Your task to perform on an android device: turn on data saver in the chrome app Image 0: 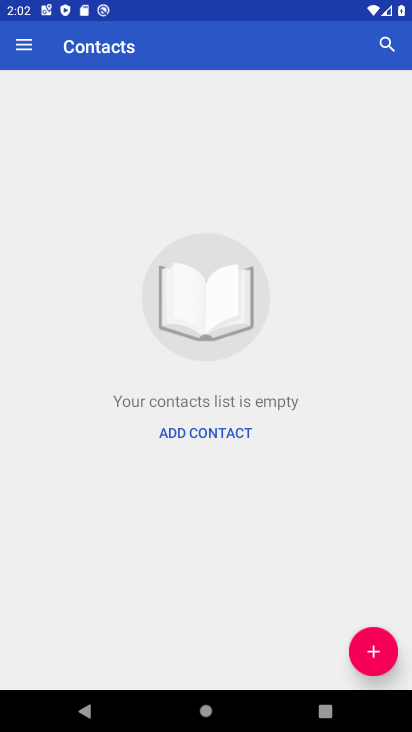
Step 0: press home button
Your task to perform on an android device: turn on data saver in the chrome app Image 1: 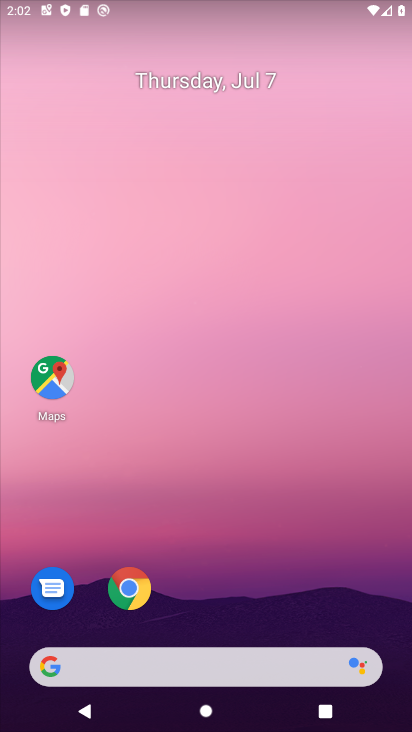
Step 1: click (121, 591)
Your task to perform on an android device: turn on data saver in the chrome app Image 2: 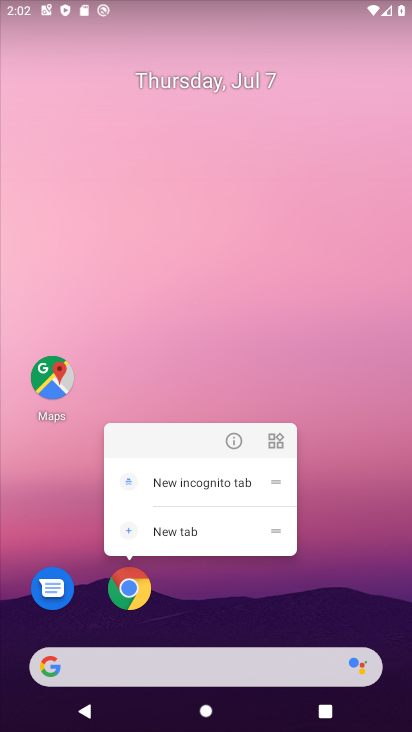
Step 2: click (129, 588)
Your task to perform on an android device: turn on data saver in the chrome app Image 3: 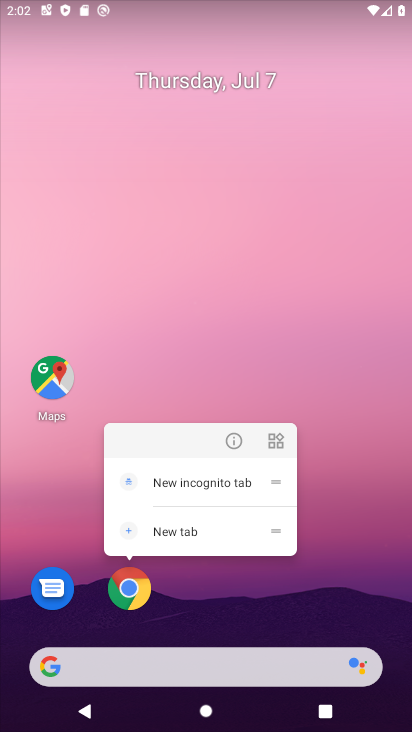
Step 3: click (131, 588)
Your task to perform on an android device: turn on data saver in the chrome app Image 4: 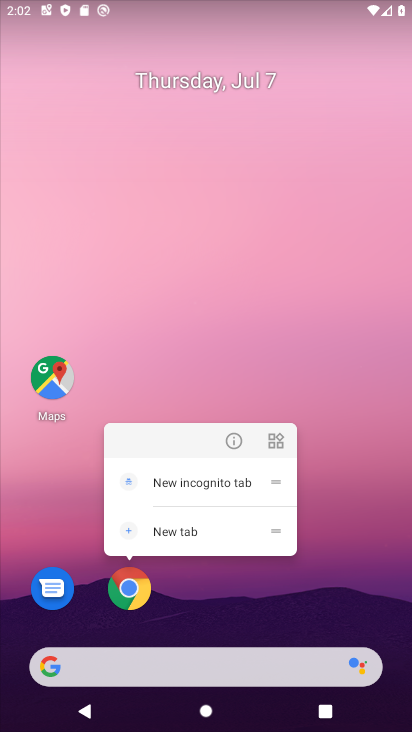
Step 4: click (122, 610)
Your task to perform on an android device: turn on data saver in the chrome app Image 5: 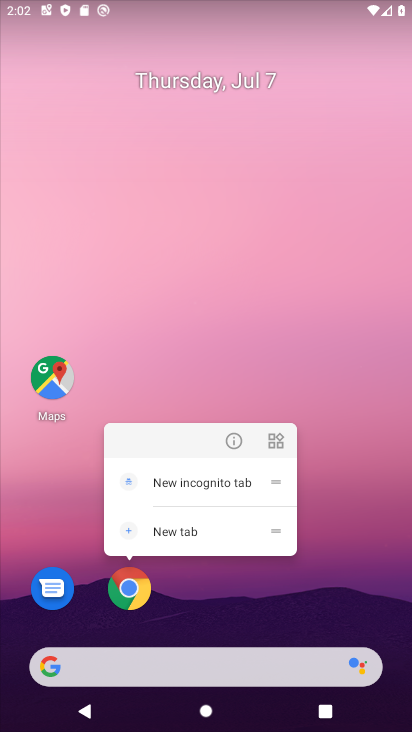
Step 5: click (127, 588)
Your task to perform on an android device: turn on data saver in the chrome app Image 6: 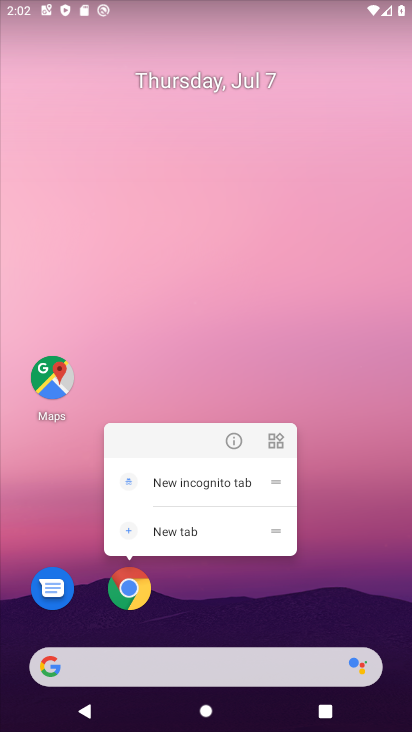
Step 6: click (135, 586)
Your task to perform on an android device: turn on data saver in the chrome app Image 7: 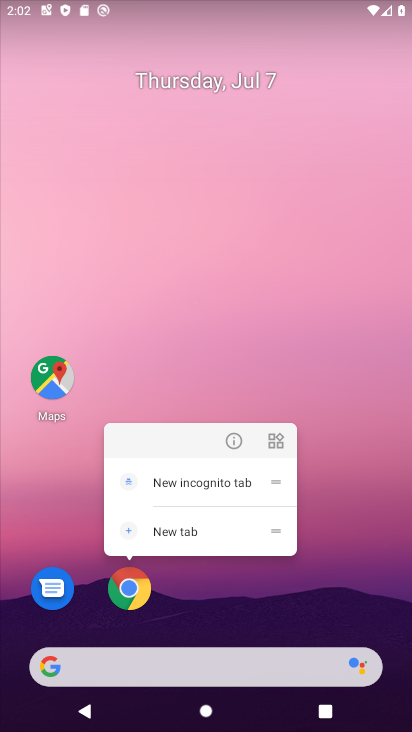
Step 7: click (120, 570)
Your task to perform on an android device: turn on data saver in the chrome app Image 8: 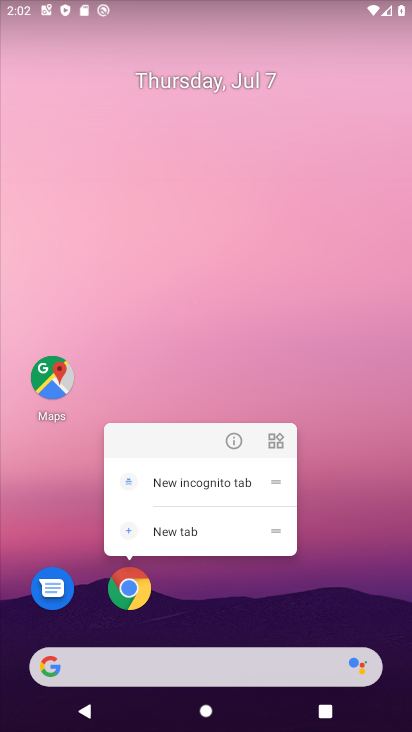
Step 8: task complete